Your task to perform on an android device: toggle pop-ups in chrome Image 0: 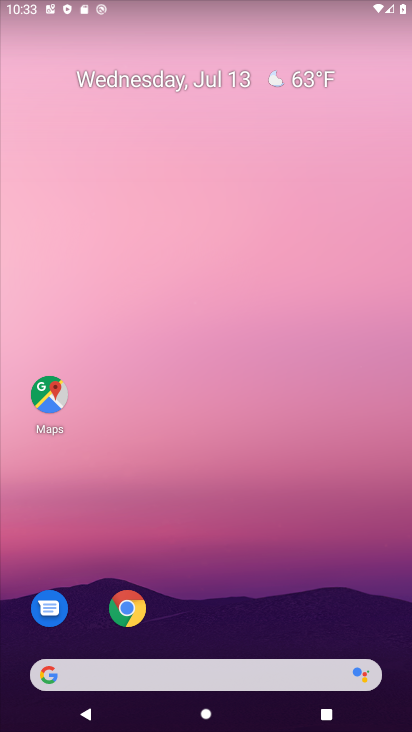
Step 0: press home button
Your task to perform on an android device: toggle pop-ups in chrome Image 1: 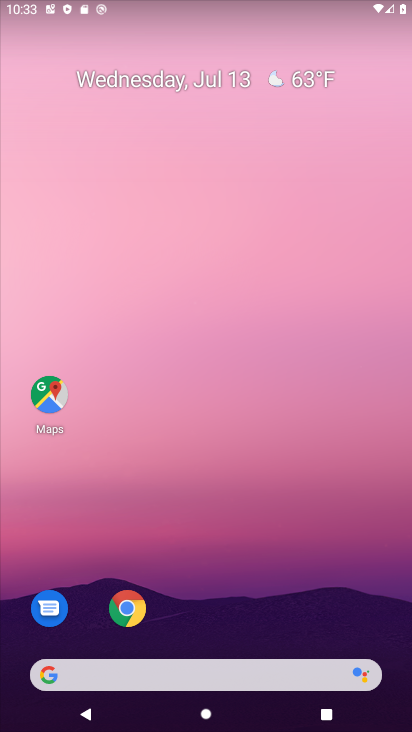
Step 1: click (251, 168)
Your task to perform on an android device: toggle pop-ups in chrome Image 2: 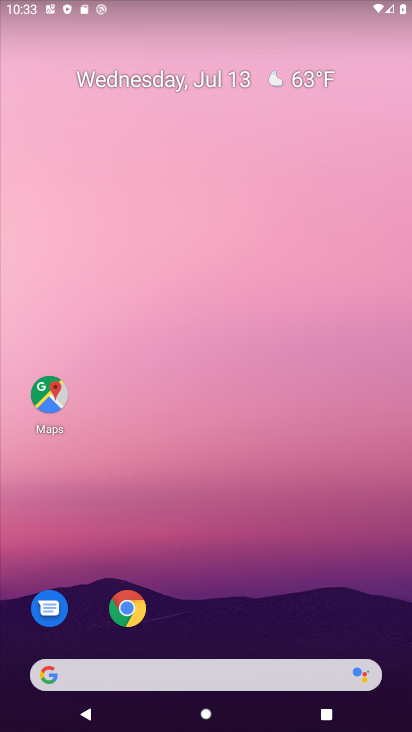
Step 2: press home button
Your task to perform on an android device: toggle pop-ups in chrome Image 3: 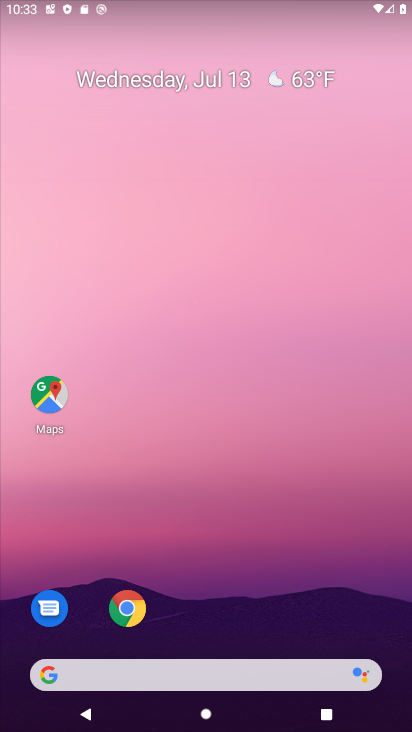
Step 3: click (133, 603)
Your task to perform on an android device: toggle pop-ups in chrome Image 4: 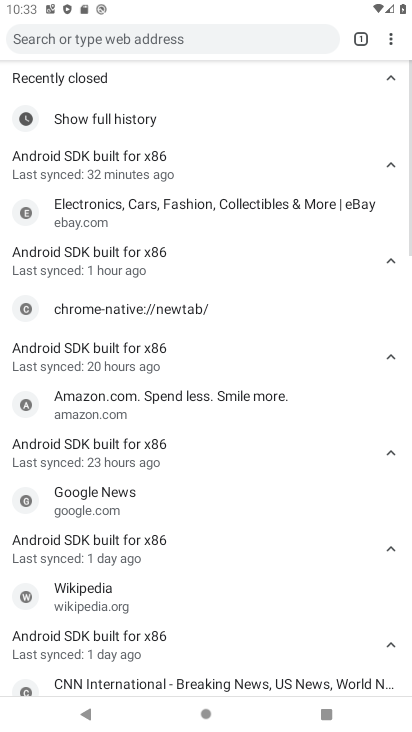
Step 4: drag from (387, 37) to (247, 318)
Your task to perform on an android device: toggle pop-ups in chrome Image 5: 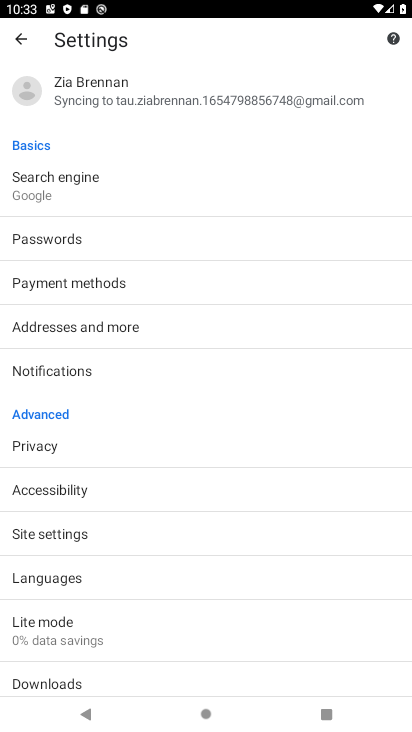
Step 5: click (76, 532)
Your task to perform on an android device: toggle pop-ups in chrome Image 6: 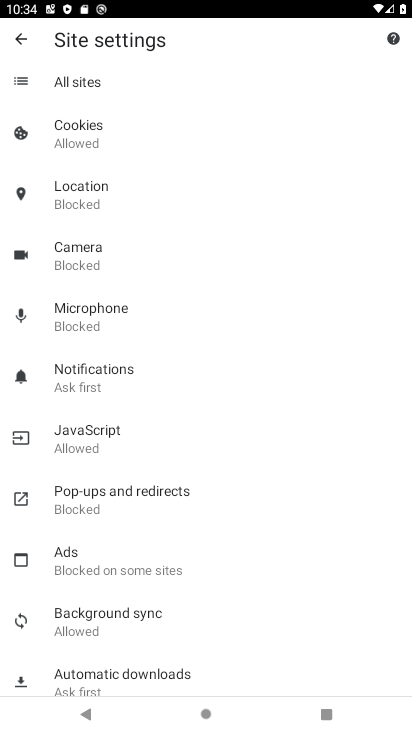
Step 6: click (118, 501)
Your task to perform on an android device: toggle pop-ups in chrome Image 7: 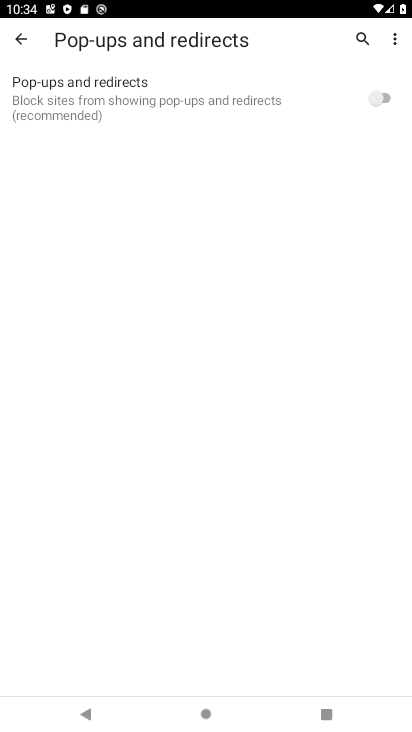
Step 7: click (381, 92)
Your task to perform on an android device: toggle pop-ups in chrome Image 8: 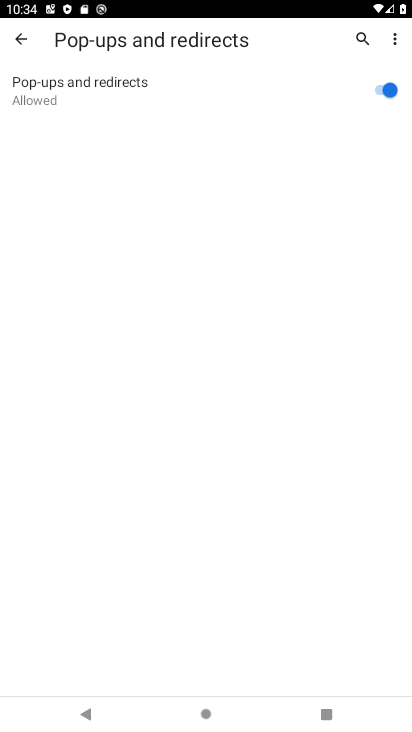
Step 8: task complete